Your task to perform on an android device: toggle airplane mode Image 0: 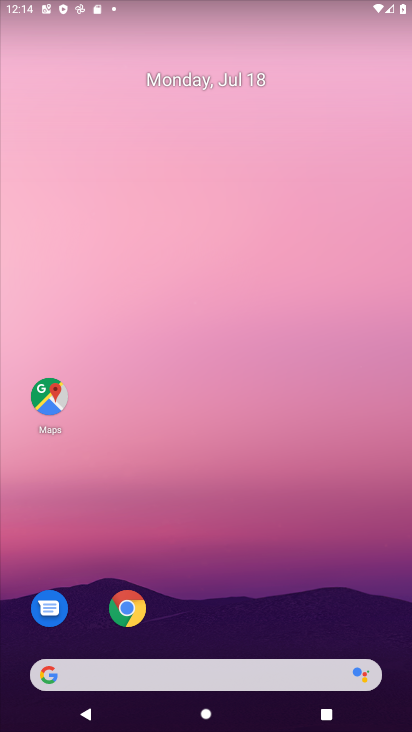
Step 0: drag from (377, 634) to (257, 33)
Your task to perform on an android device: toggle airplane mode Image 1: 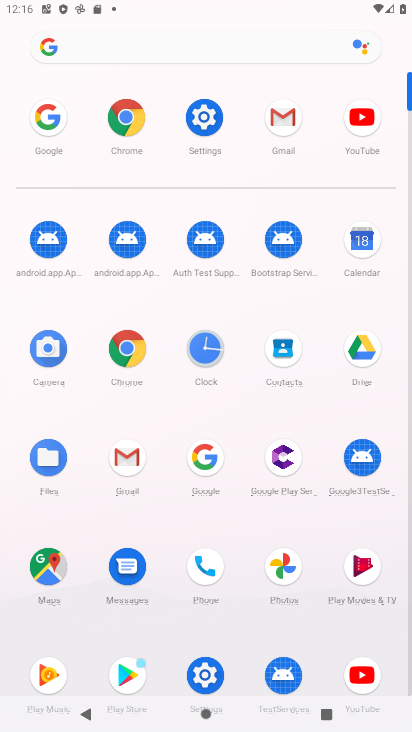
Step 1: drag from (277, 4) to (330, 622)
Your task to perform on an android device: toggle airplane mode Image 2: 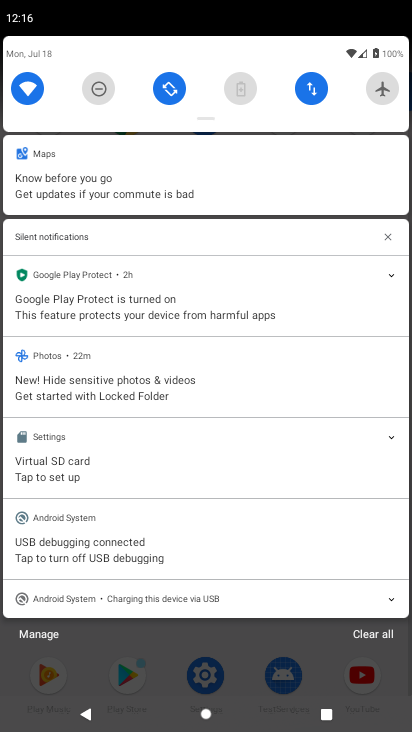
Step 2: click (381, 83)
Your task to perform on an android device: toggle airplane mode Image 3: 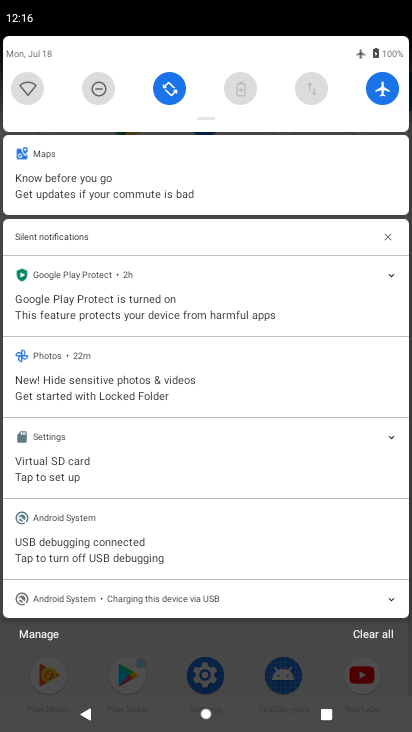
Step 3: task complete